Your task to perform on an android device: Set the phone to "Do not disturb". Image 0: 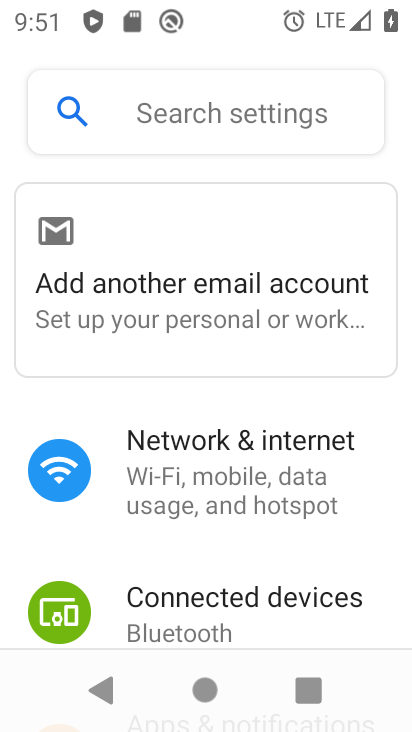
Step 0: drag from (196, 590) to (255, 73)
Your task to perform on an android device: Set the phone to "Do not disturb". Image 1: 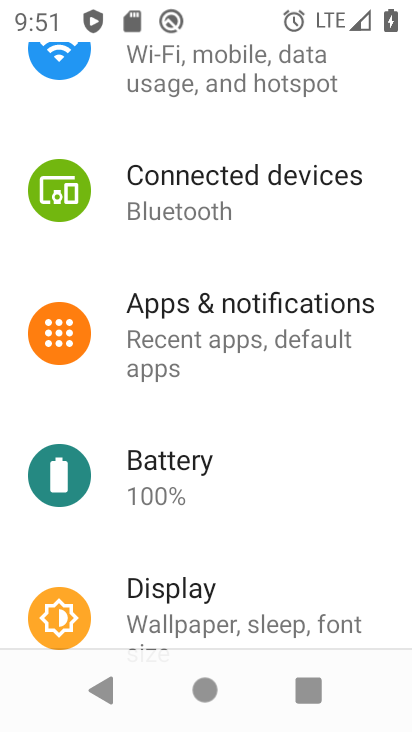
Step 1: drag from (225, 615) to (352, 193)
Your task to perform on an android device: Set the phone to "Do not disturb". Image 2: 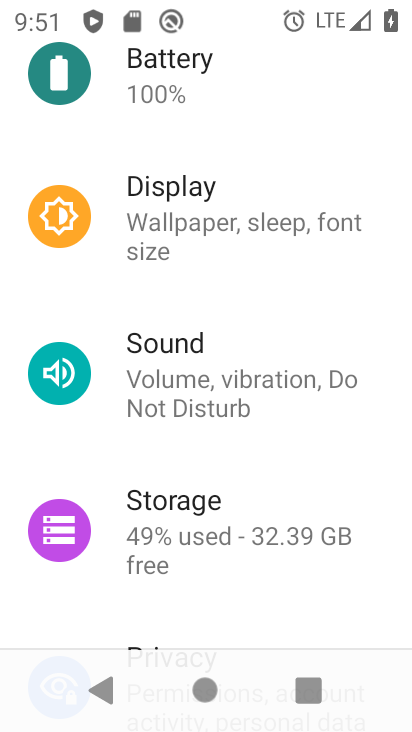
Step 2: drag from (355, 138) to (397, 728)
Your task to perform on an android device: Set the phone to "Do not disturb". Image 3: 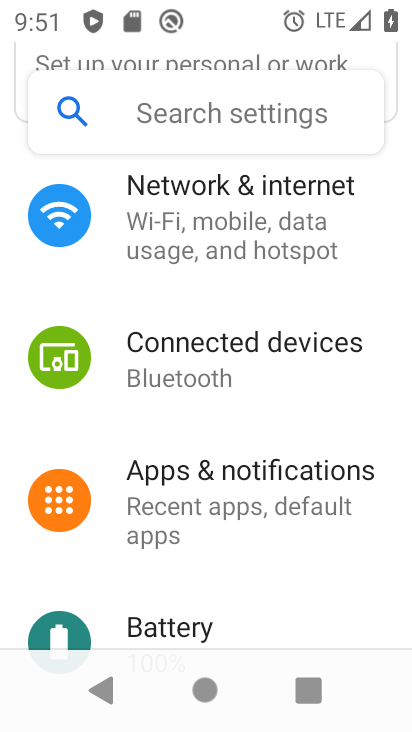
Step 3: click (162, 498)
Your task to perform on an android device: Set the phone to "Do not disturb". Image 4: 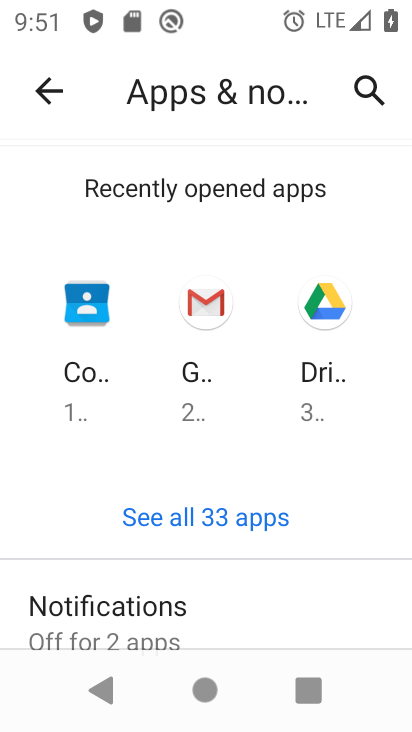
Step 4: drag from (185, 601) to (246, 142)
Your task to perform on an android device: Set the phone to "Do not disturb". Image 5: 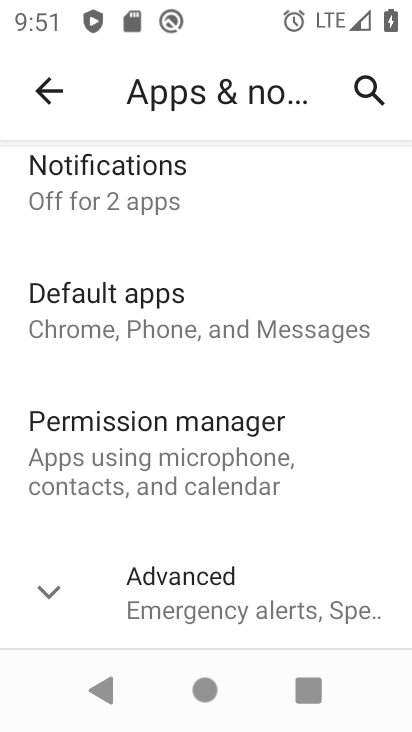
Step 5: click (152, 182)
Your task to perform on an android device: Set the phone to "Do not disturb". Image 6: 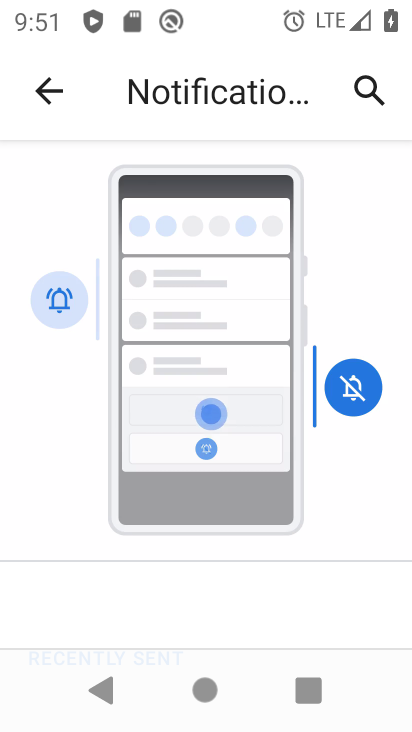
Step 6: drag from (264, 550) to (345, 10)
Your task to perform on an android device: Set the phone to "Do not disturb". Image 7: 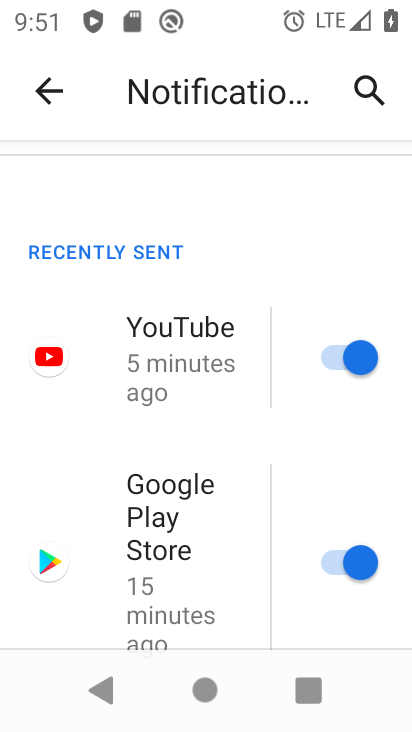
Step 7: drag from (240, 571) to (286, 79)
Your task to perform on an android device: Set the phone to "Do not disturb". Image 8: 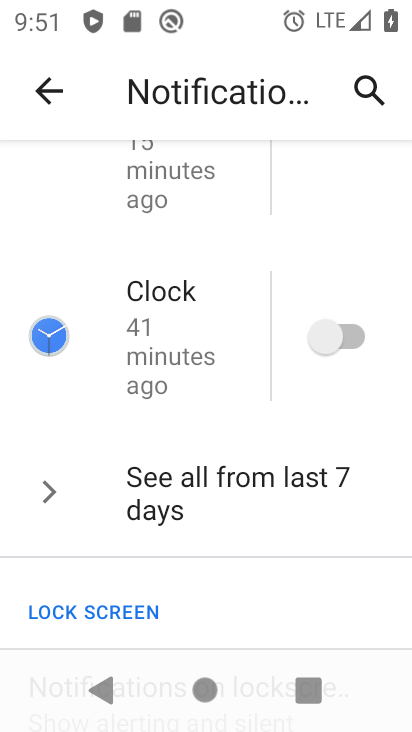
Step 8: drag from (239, 573) to (295, 170)
Your task to perform on an android device: Set the phone to "Do not disturb". Image 9: 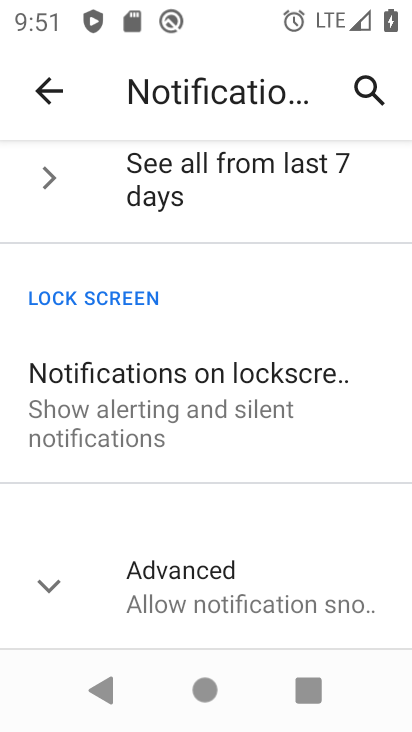
Step 9: click (204, 576)
Your task to perform on an android device: Set the phone to "Do not disturb". Image 10: 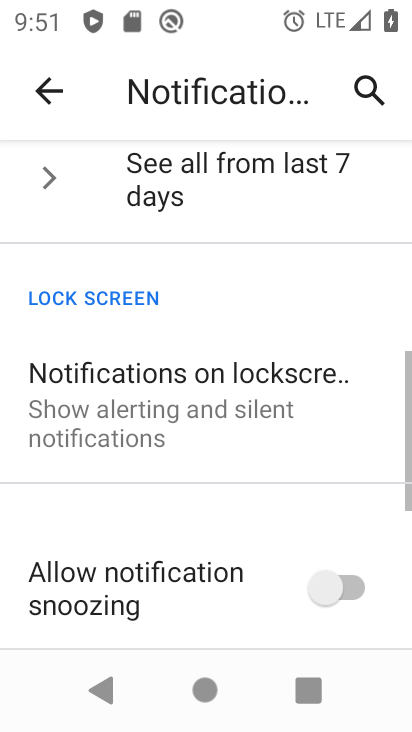
Step 10: drag from (203, 552) to (311, 19)
Your task to perform on an android device: Set the phone to "Do not disturb". Image 11: 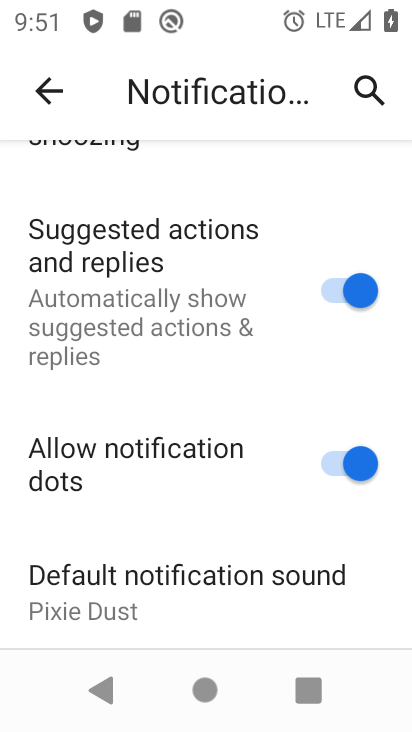
Step 11: drag from (170, 531) to (356, 46)
Your task to perform on an android device: Set the phone to "Do not disturb". Image 12: 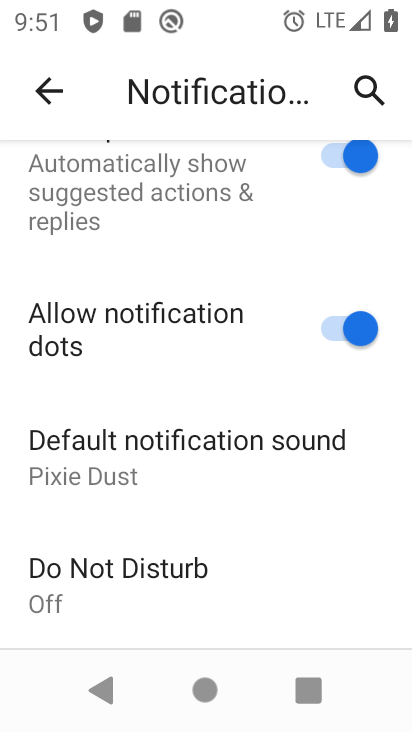
Step 12: click (165, 611)
Your task to perform on an android device: Set the phone to "Do not disturb". Image 13: 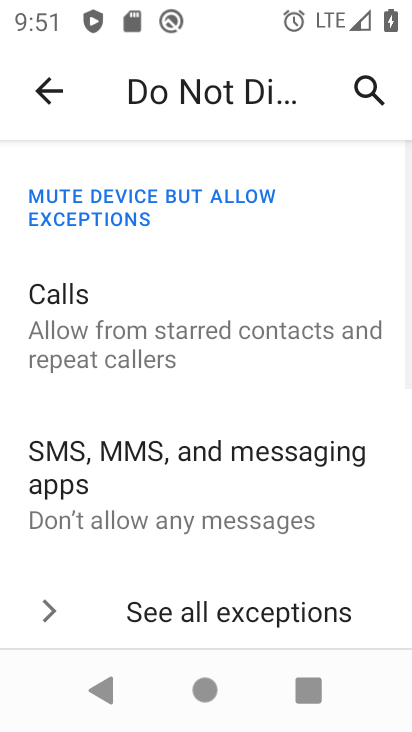
Step 13: drag from (170, 496) to (130, 9)
Your task to perform on an android device: Set the phone to "Do not disturb". Image 14: 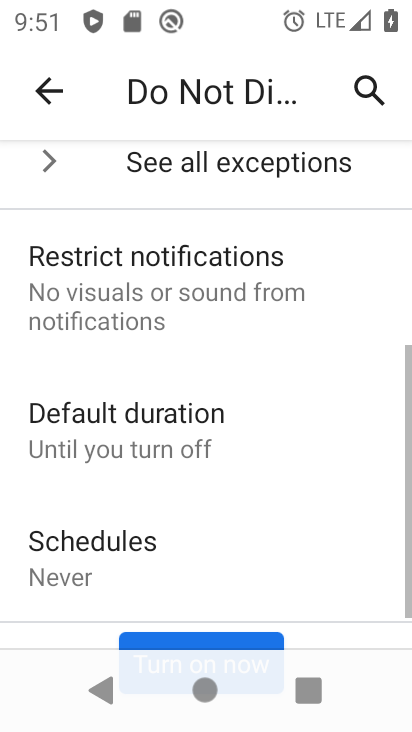
Step 14: drag from (184, 553) to (215, 149)
Your task to perform on an android device: Set the phone to "Do not disturb". Image 15: 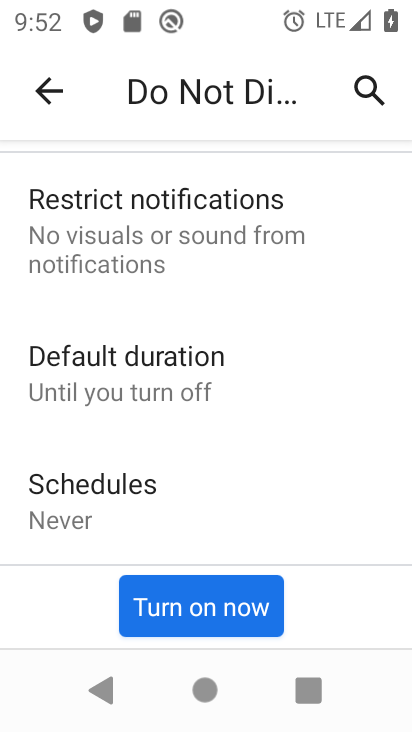
Step 15: click (194, 603)
Your task to perform on an android device: Set the phone to "Do not disturb". Image 16: 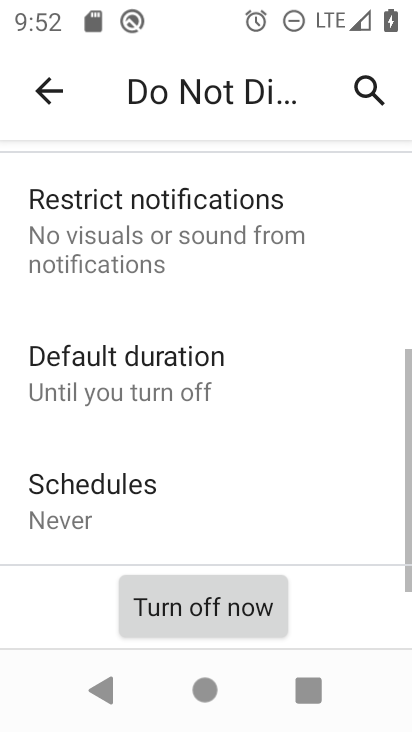
Step 16: task complete